Your task to perform on an android device: turn off airplane mode Image 0: 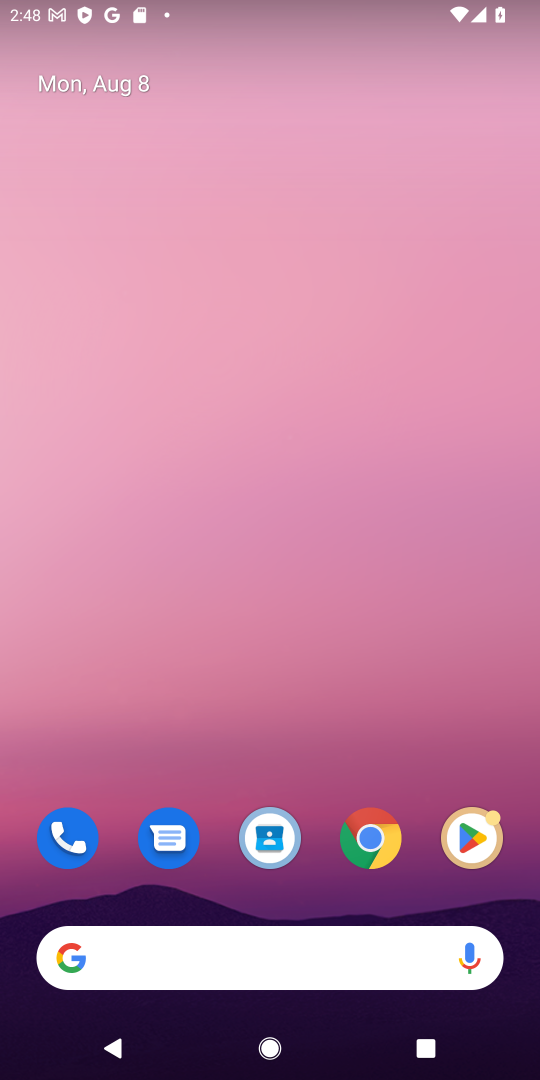
Step 0: drag from (382, 934) to (441, 0)
Your task to perform on an android device: turn off airplane mode Image 1: 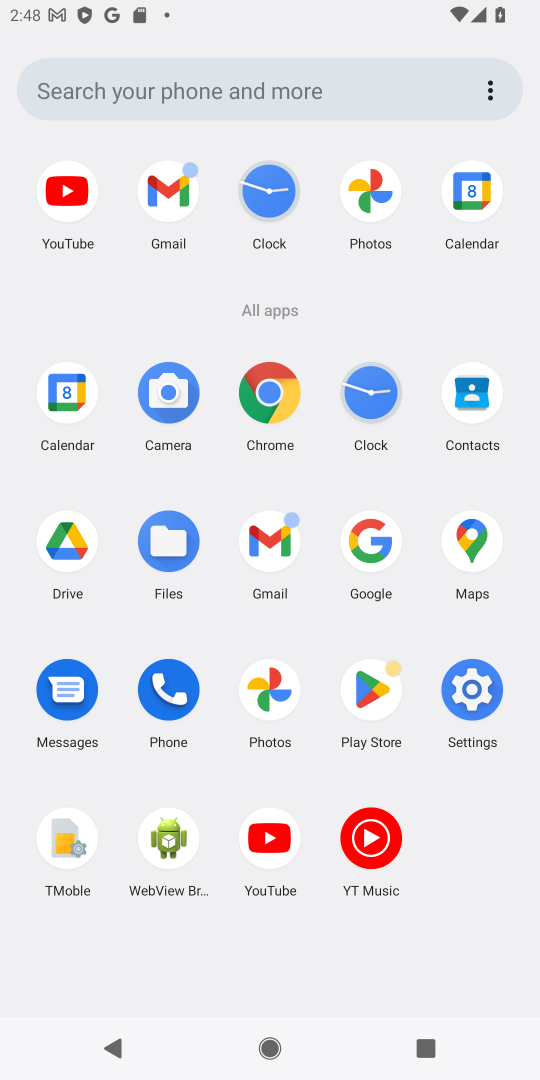
Step 1: click (483, 702)
Your task to perform on an android device: turn off airplane mode Image 2: 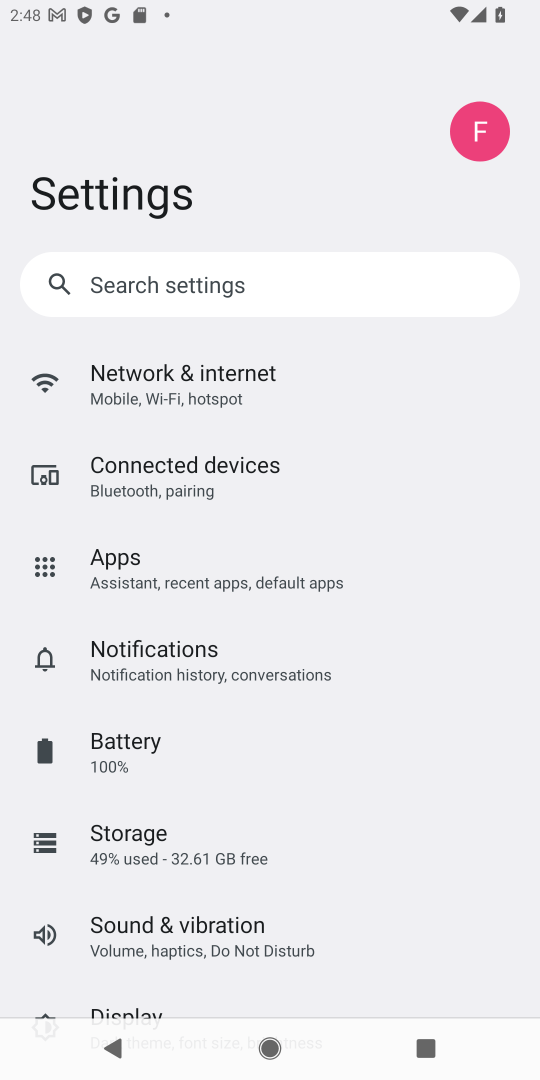
Step 2: click (319, 393)
Your task to perform on an android device: turn off airplane mode Image 3: 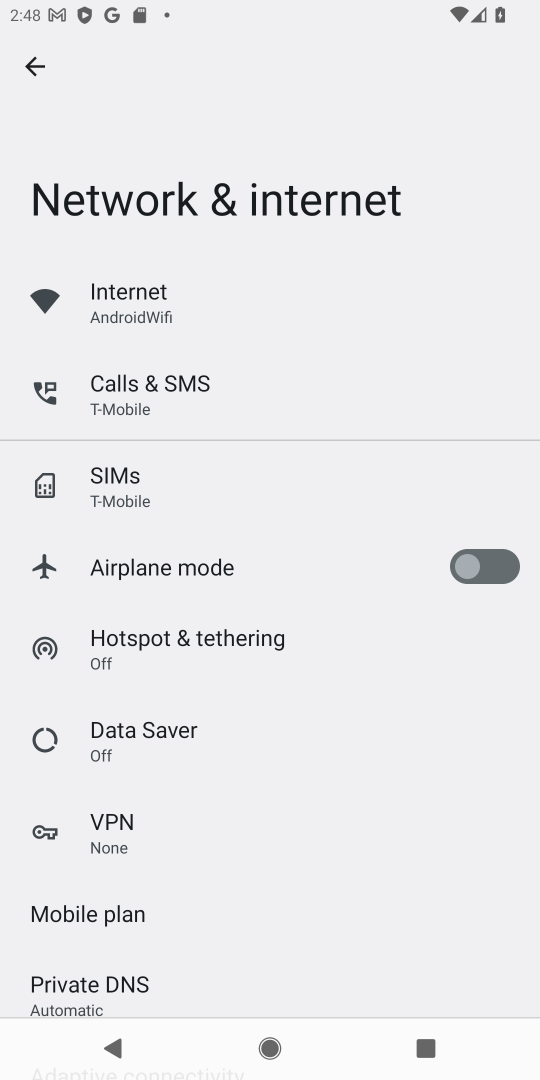
Step 3: task complete